Your task to perform on an android device: Search for vegetarian restaurants on Maps Image 0: 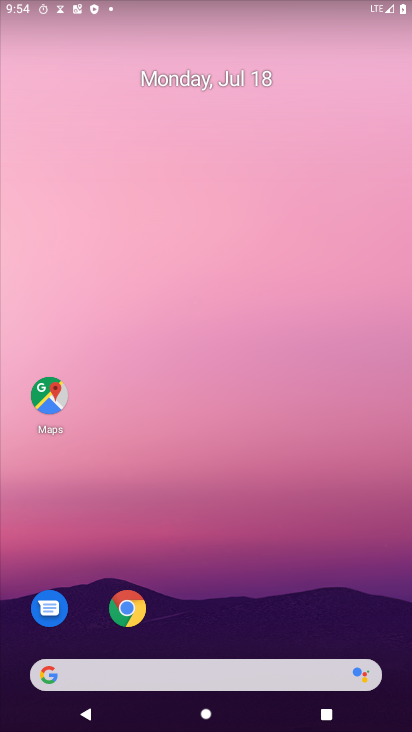
Step 0: click (48, 394)
Your task to perform on an android device: Search for vegetarian restaurants on Maps Image 1: 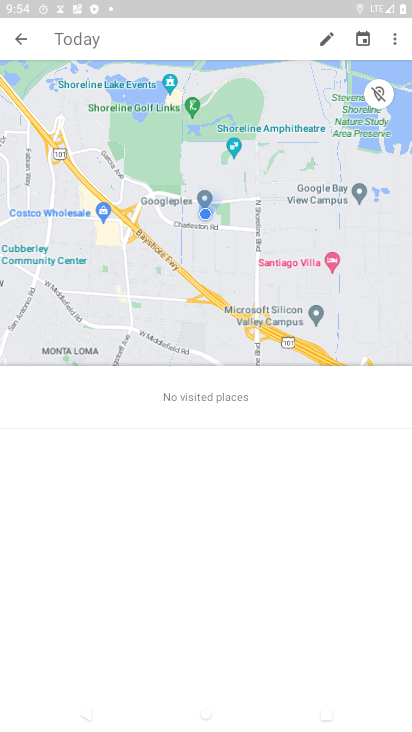
Step 1: click (11, 47)
Your task to perform on an android device: Search for vegetarian restaurants on Maps Image 2: 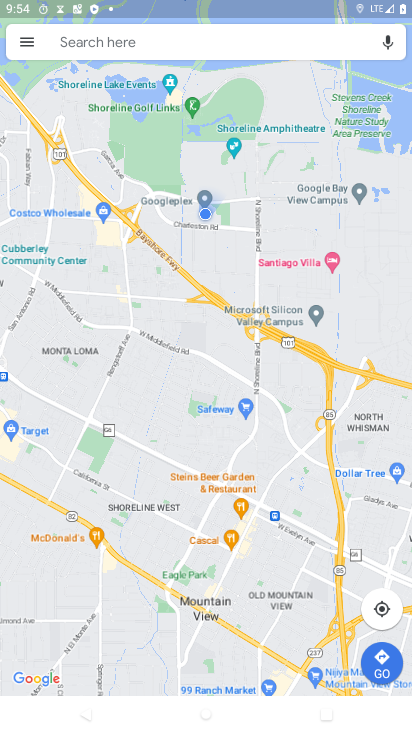
Step 2: click (175, 37)
Your task to perform on an android device: Search for vegetarian restaurants on Maps Image 3: 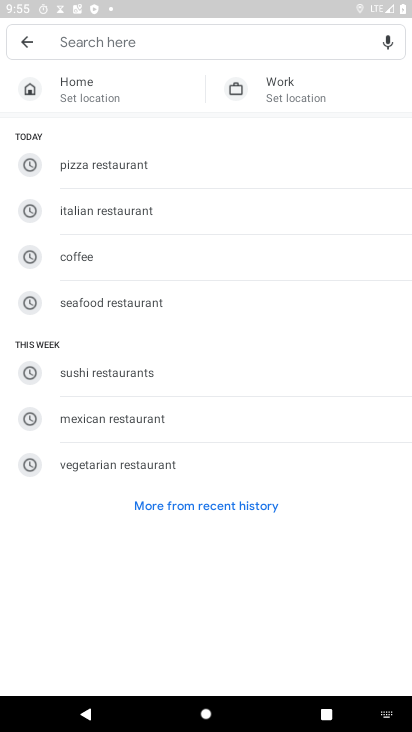
Step 3: click (139, 463)
Your task to perform on an android device: Search for vegetarian restaurants on Maps Image 4: 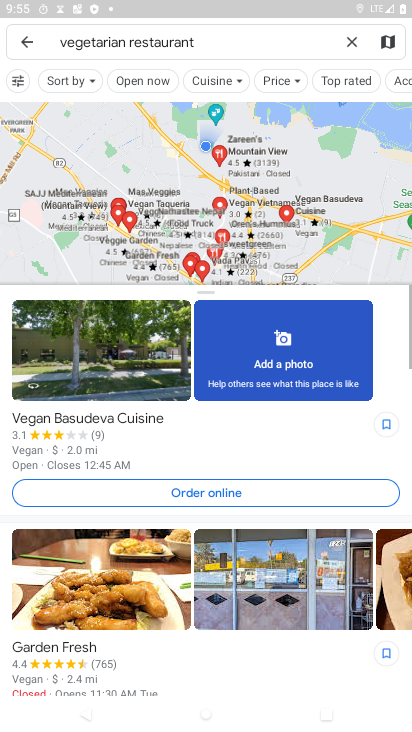
Step 4: task complete